Your task to perform on an android device: check storage Image 0: 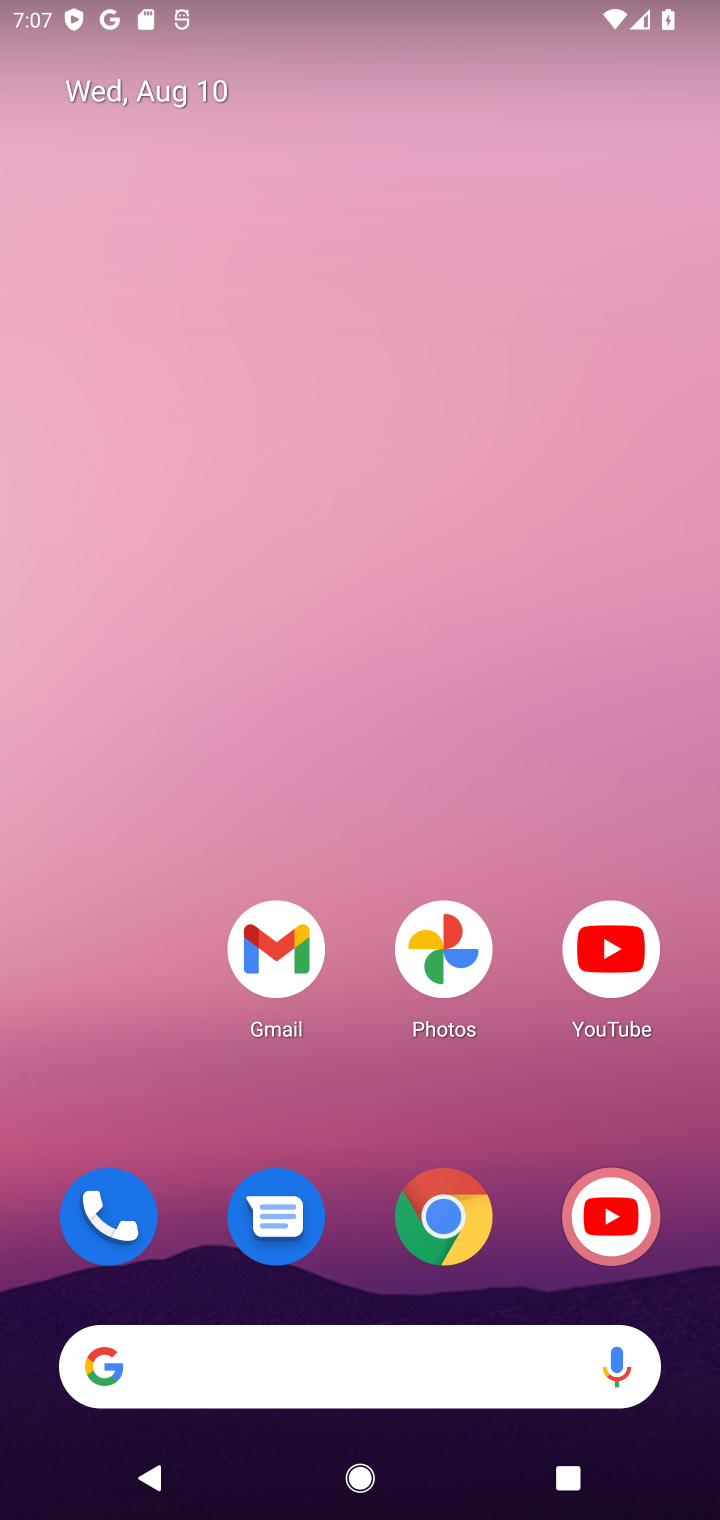
Step 0: drag from (136, 1141) to (575, 544)
Your task to perform on an android device: check storage Image 1: 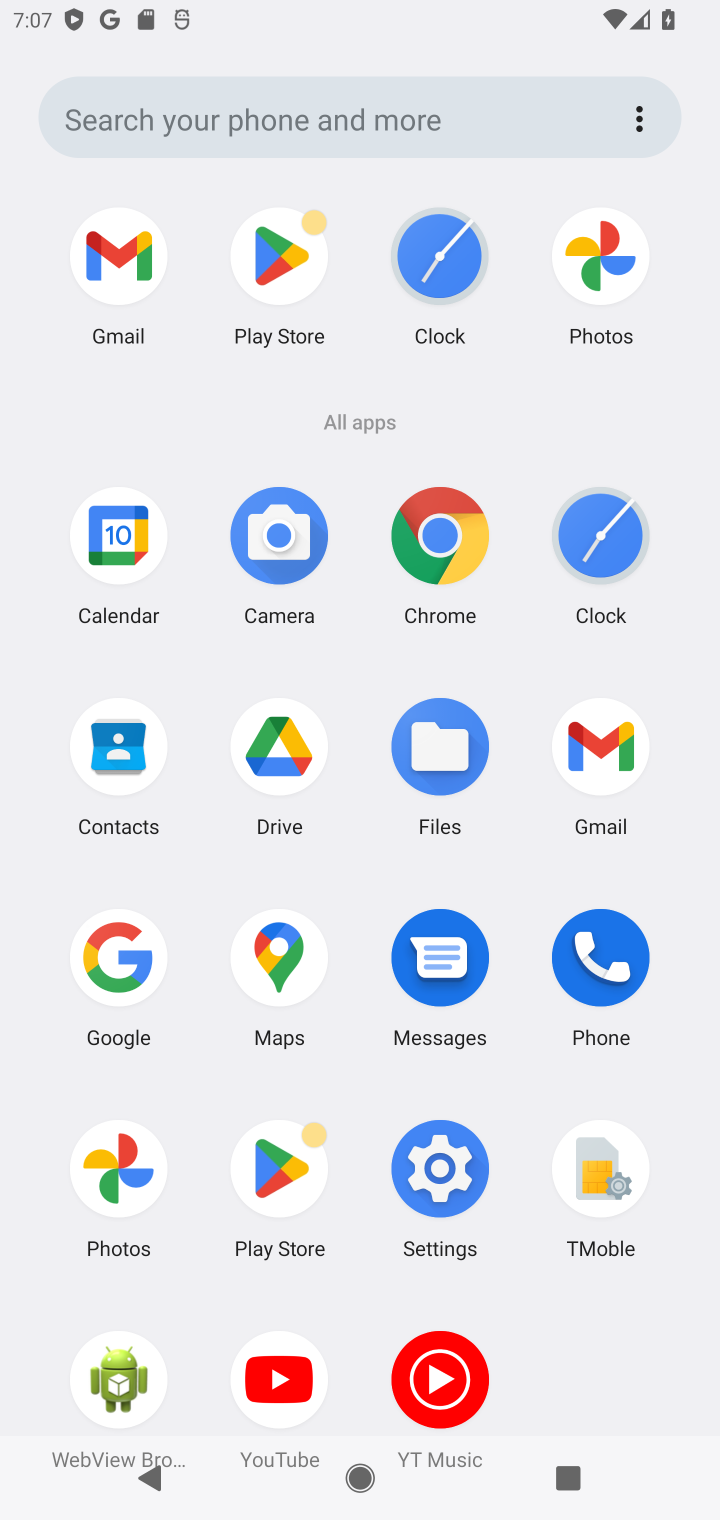
Step 1: click (441, 1151)
Your task to perform on an android device: check storage Image 2: 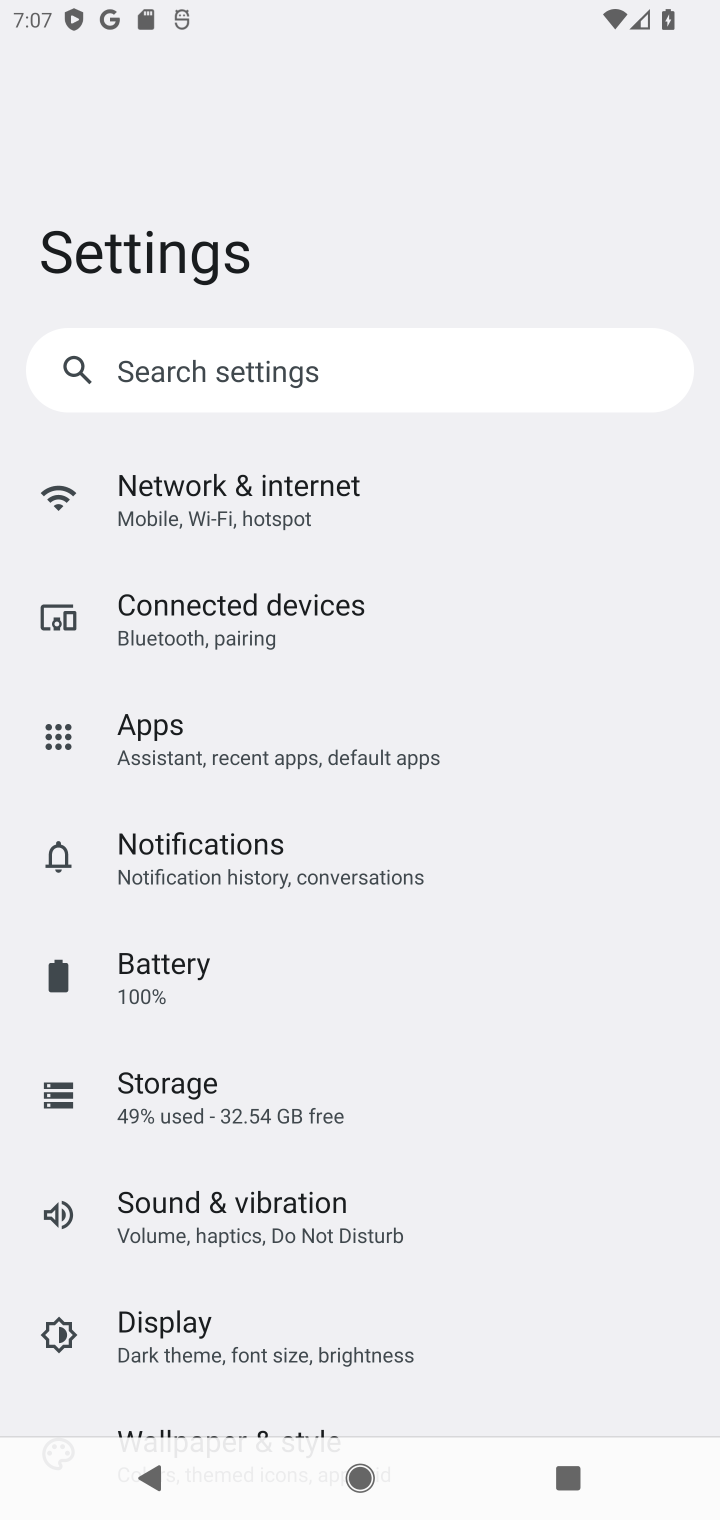
Step 2: drag from (106, 1290) to (358, 545)
Your task to perform on an android device: check storage Image 3: 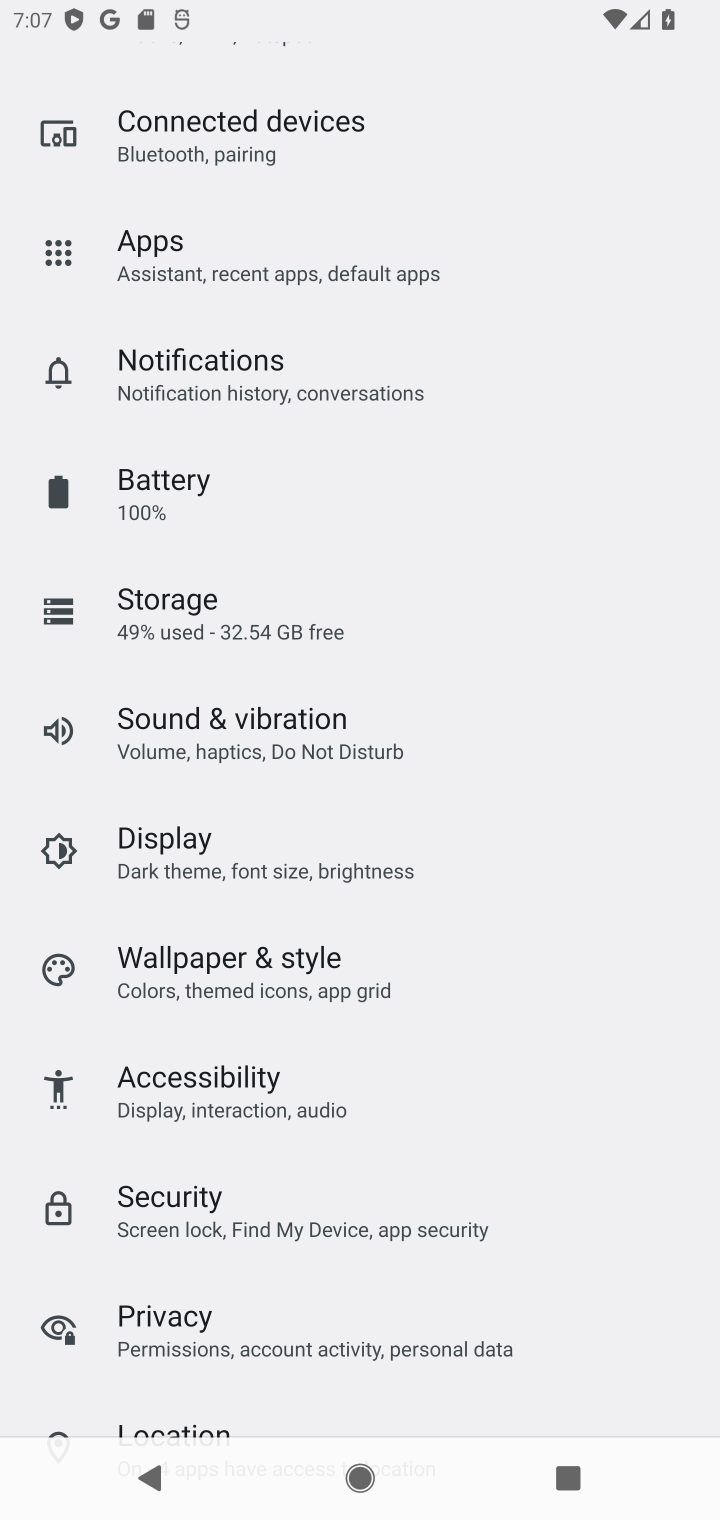
Step 3: drag from (90, 1137) to (367, 402)
Your task to perform on an android device: check storage Image 4: 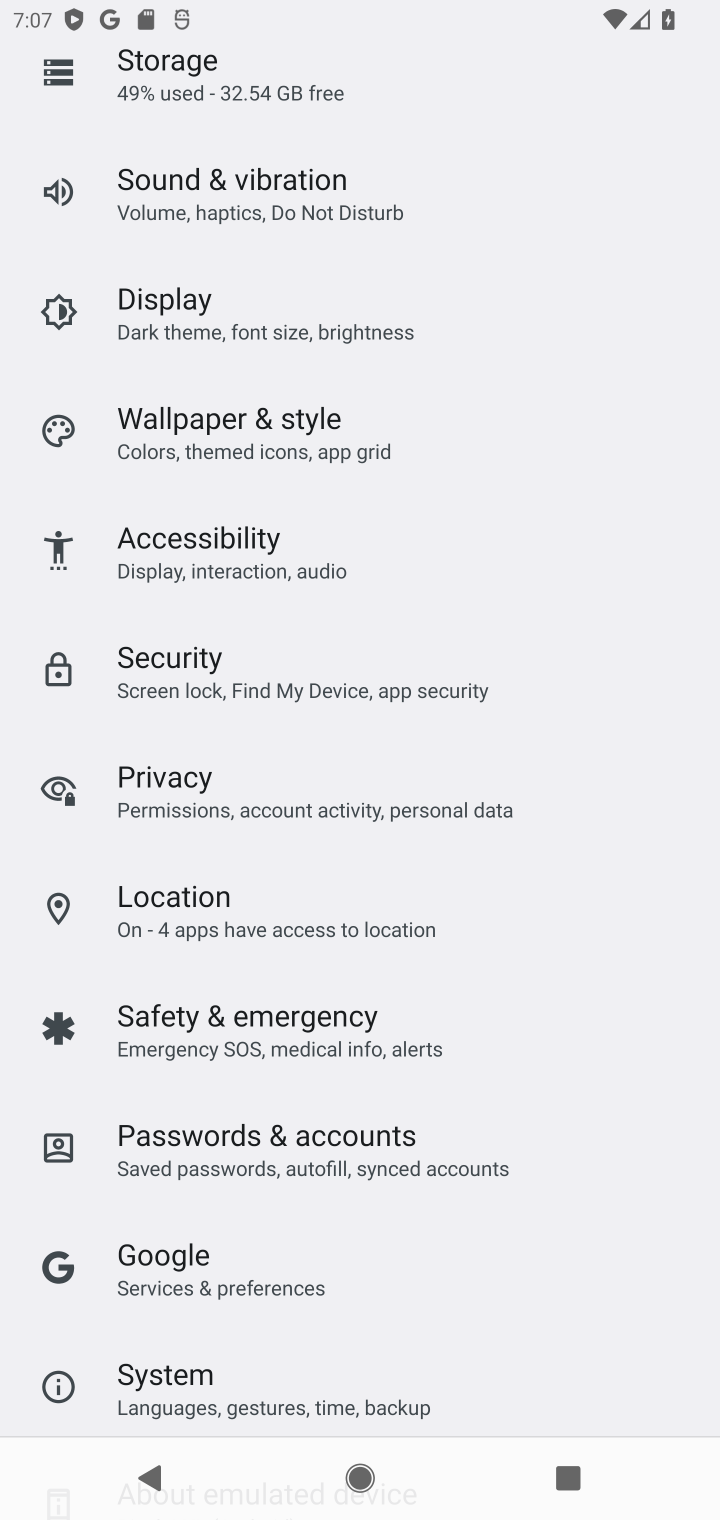
Step 4: click (217, 1372)
Your task to perform on an android device: check storage Image 5: 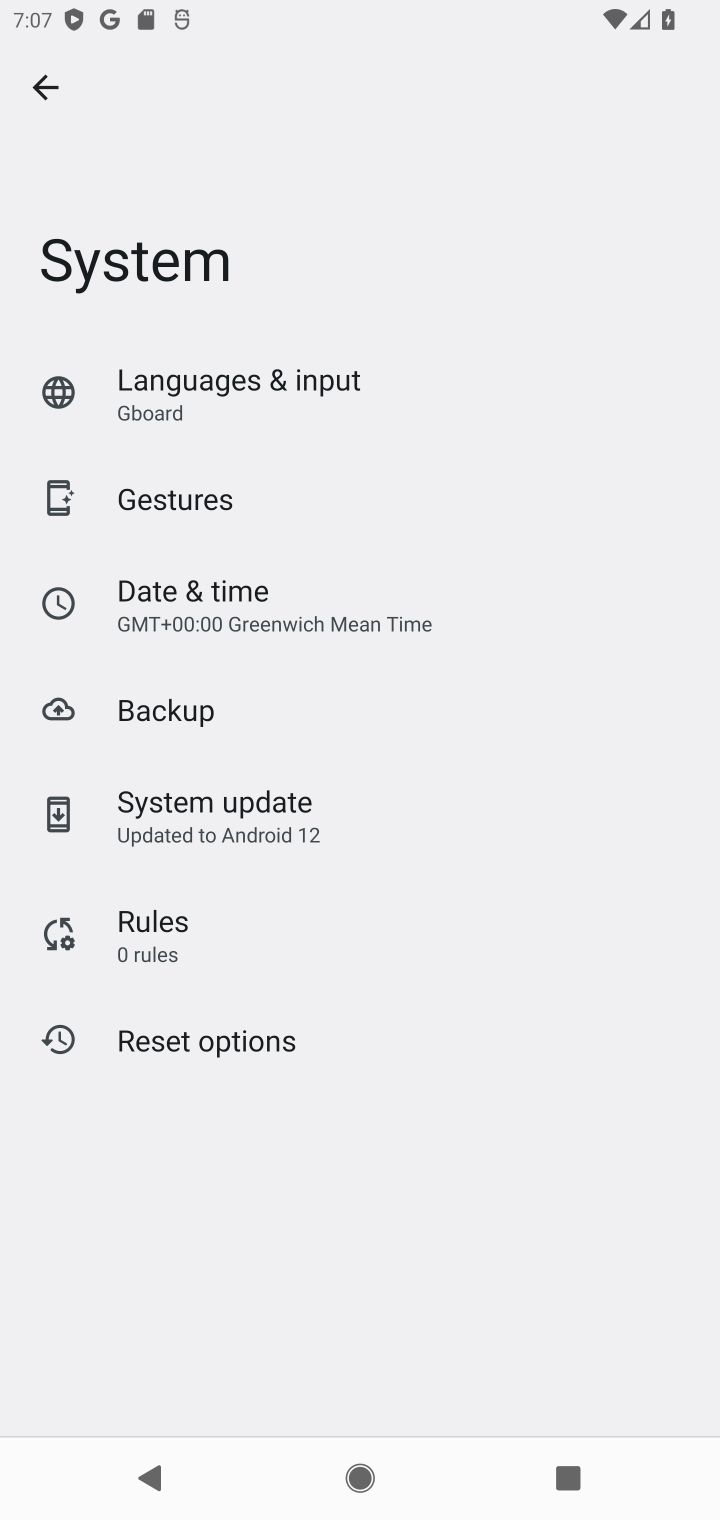
Step 5: press back button
Your task to perform on an android device: check storage Image 6: 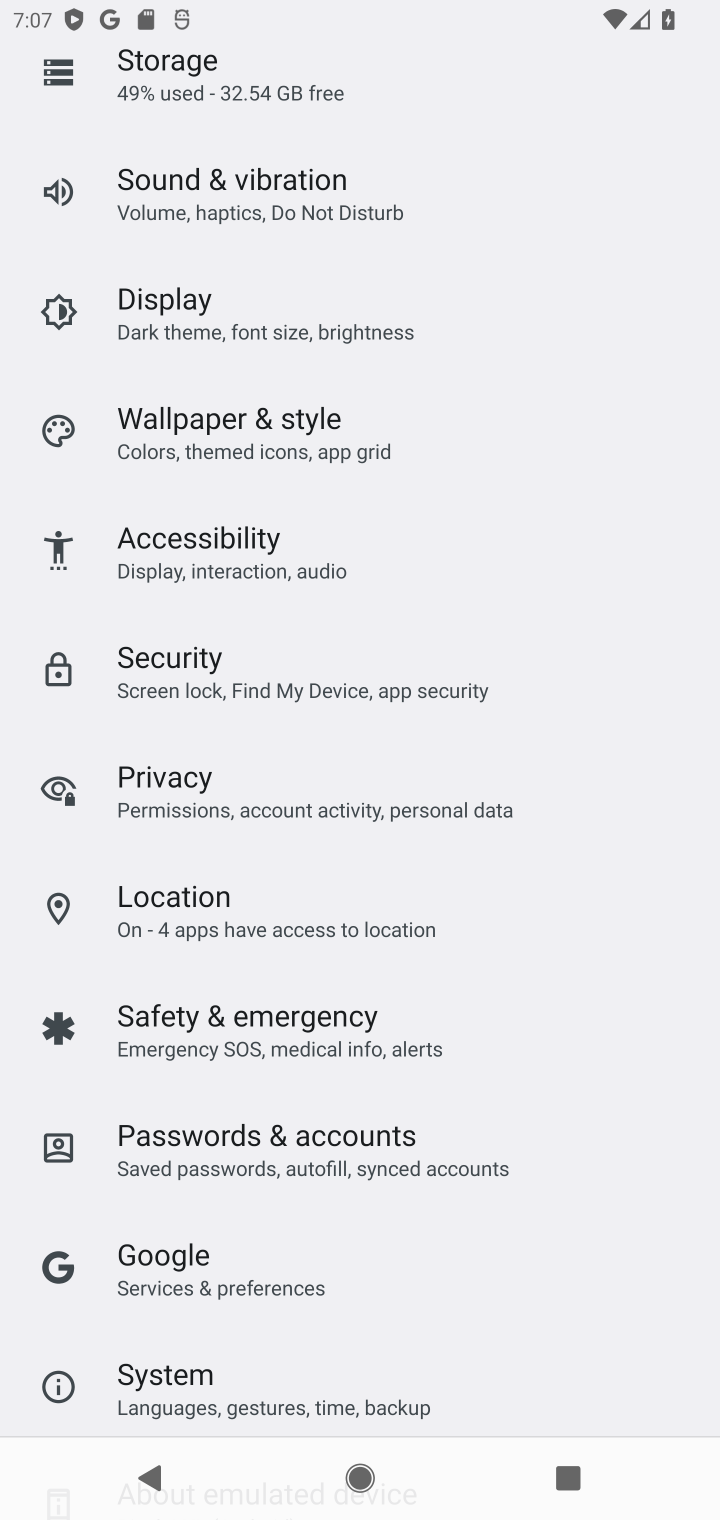
Step 6: drag from (429, 417) to (310, 1079)
Your task to perform on an android device: check storage Image 7: 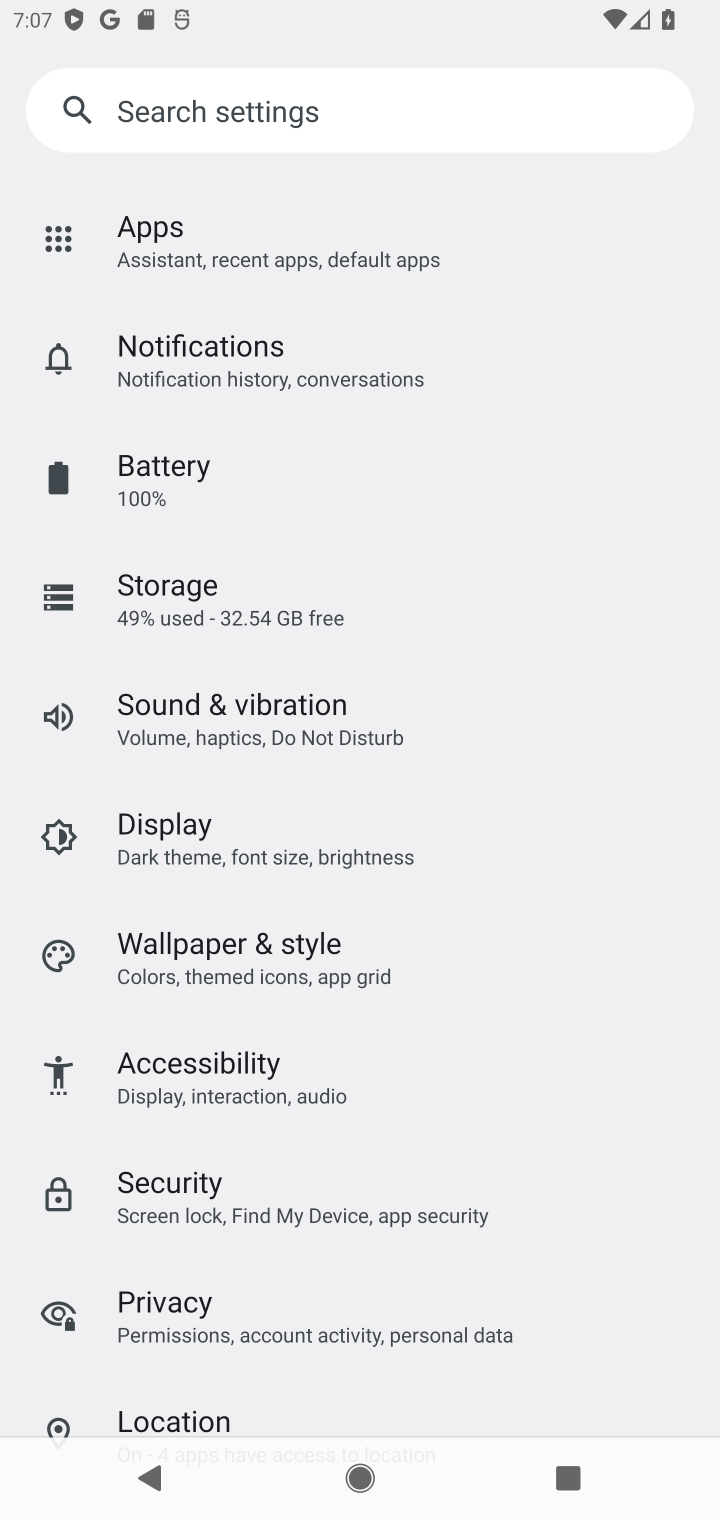
Step 7: click (212, 615)
Your task to perform on an android device: check storage Image 8: 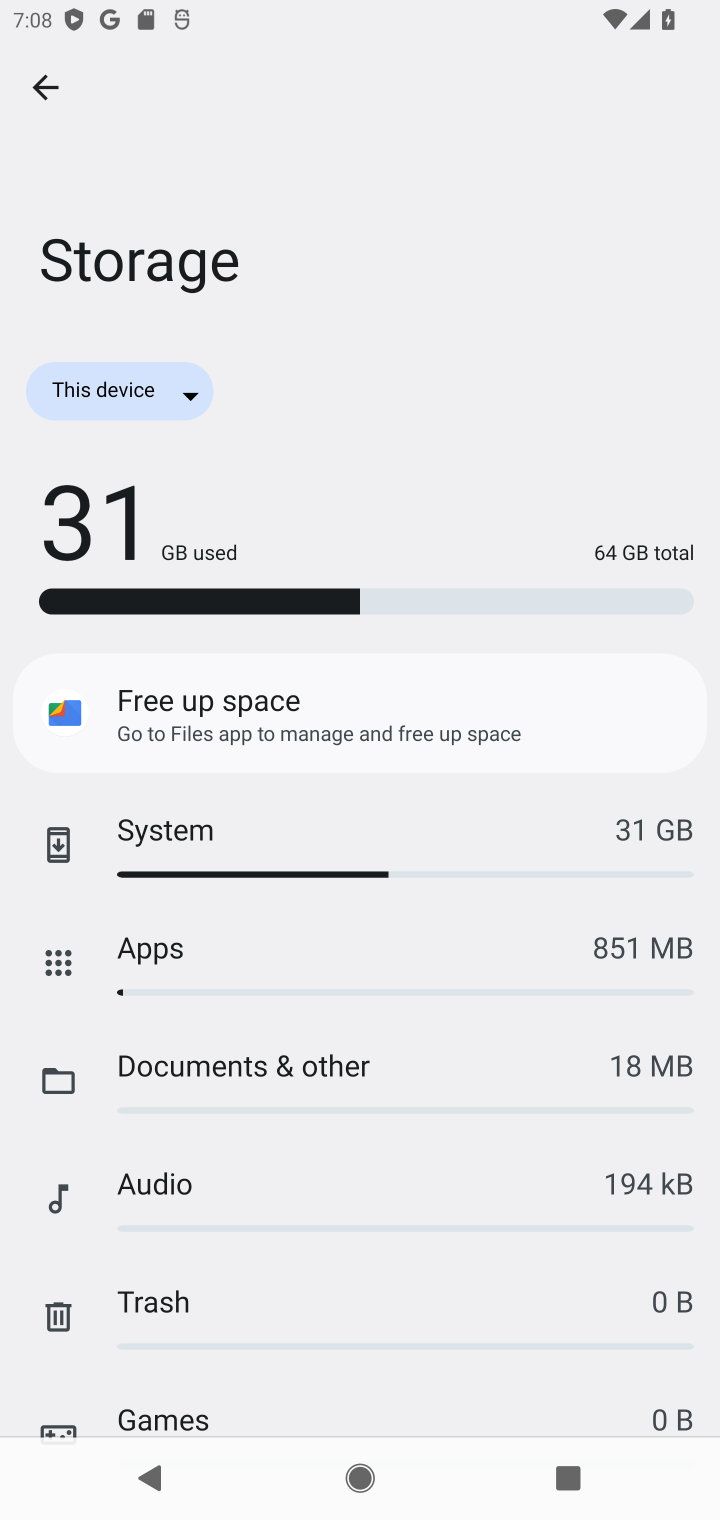
Step 8: task complete